Your task to perform on an android device: see creations saved in the google photos Image 0: 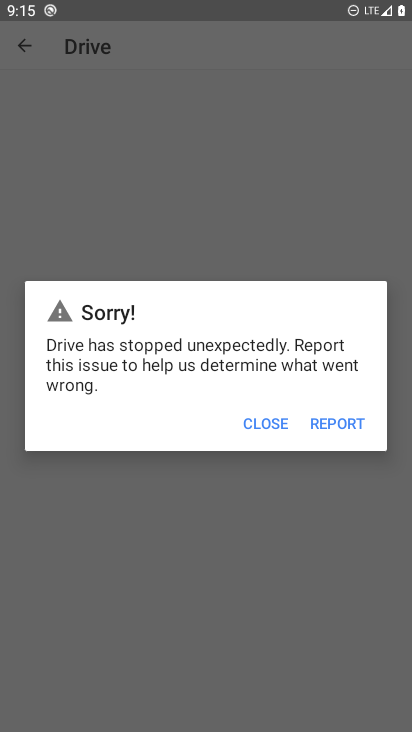
Step 0: drag from (30, 628) to (284, 34)
Your task to perform on an android device: see creations saved in the google photos Image 1: 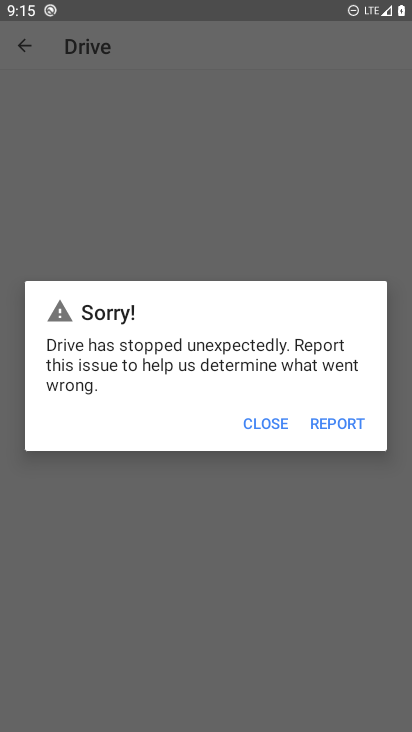
Step 1: press home button
Your task to perform on an android device: see creations saved in the google photos Image 2: 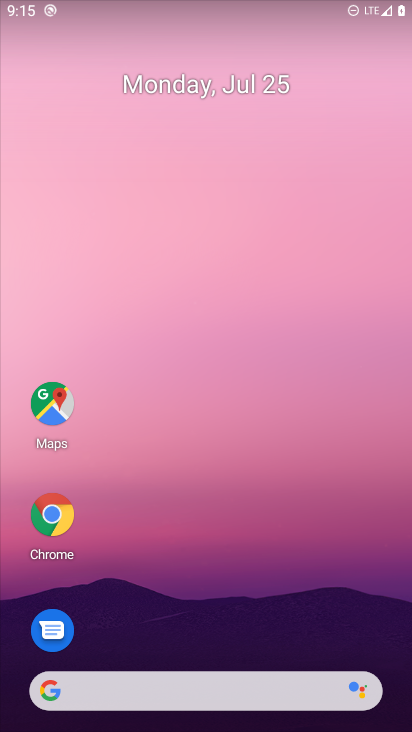
Step 2: drag from (83, 523) to (218, 147)
Your task to perform on an android device: see creations saved in the google photos Image 3: 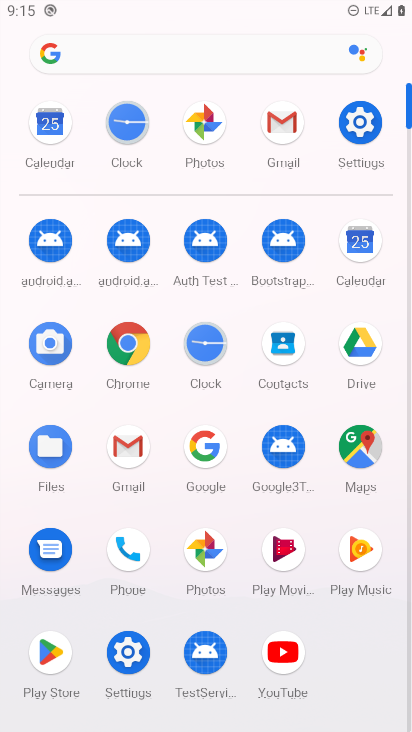
Step 3: click (205, 550)
Your task to perform on an android device: see creations saved in the google photos Image 4: 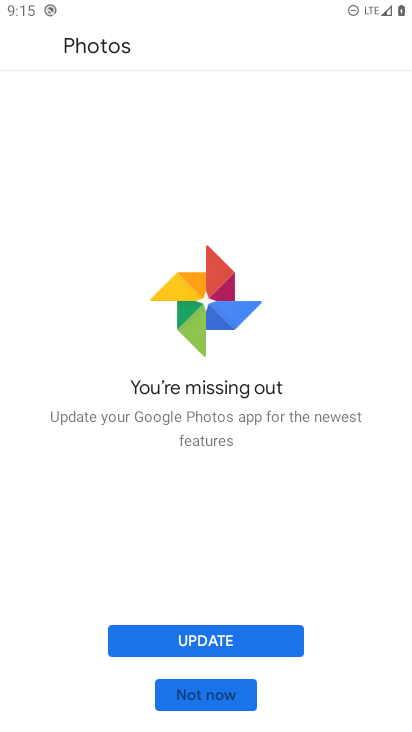
Step 4: click (197, 686)
Your task to perform on an android device: see creations saved in the google photos Image 5: 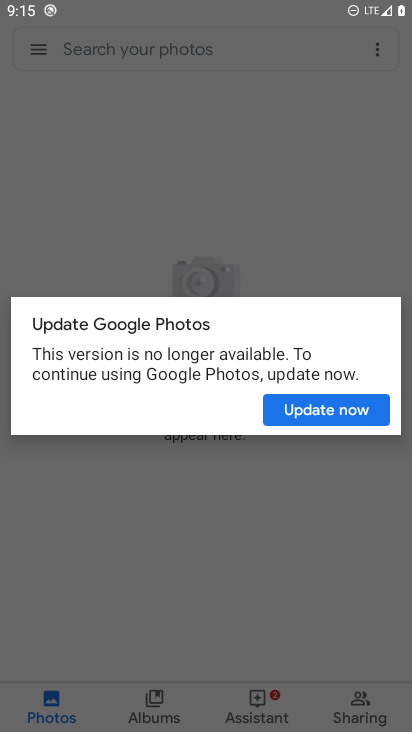
Step 5: click (303, 409)
Your task to perform on an android device: see creations saved in the google photos Image 6: 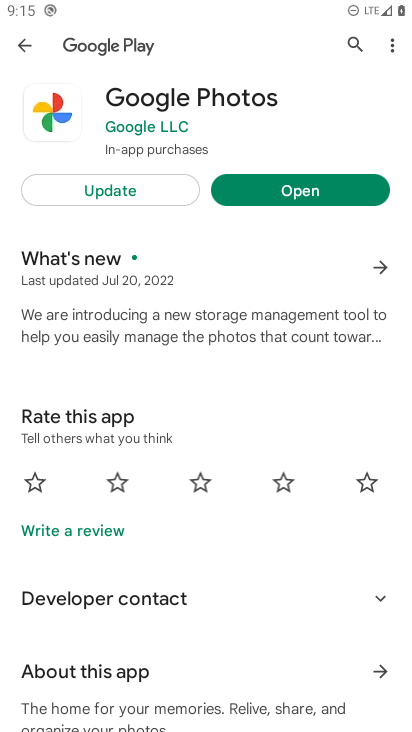
Step 6: click (287, 183)
Your task to perform on an android device: see creations saved in the google photos Image 7: 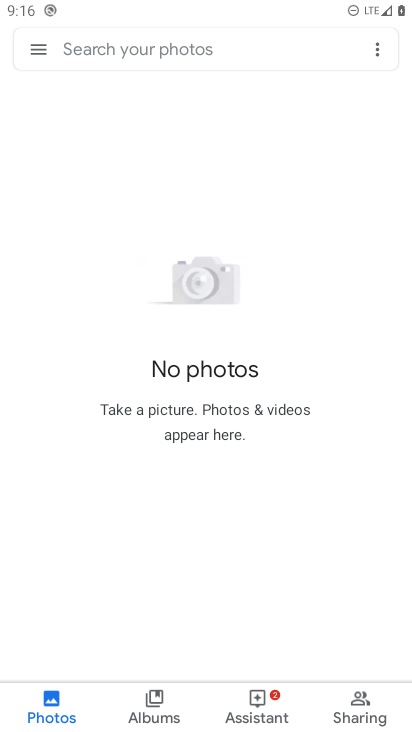
Step 7: click (37, 50)
Your task to perform on an android device: see creations saved in the google photos Image 8: 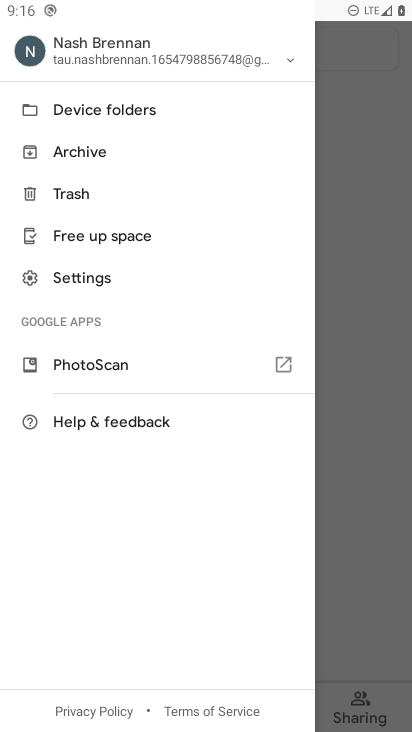
Step 8: click (371, 296)
Your task to perform on an android device: see creations saved in the google photos Image 9: 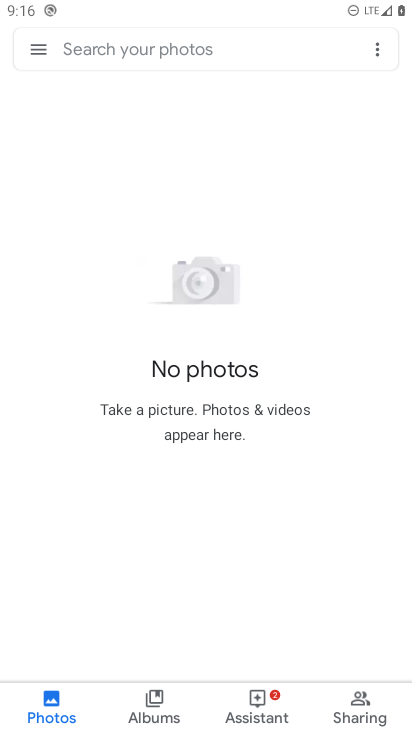
Step 9: task complete